Your task to perform on an android device: When is my next appointment? Image 0: 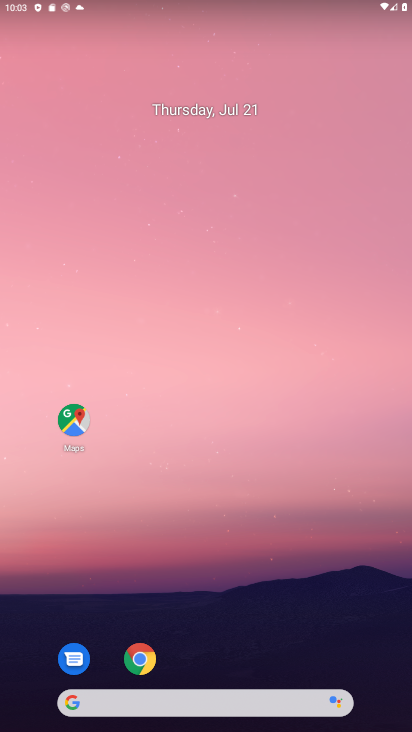
Step 0: drag from (252, 660) to (239, 216)
Your task to perform on an android device: When is my next appointment? Image 1: 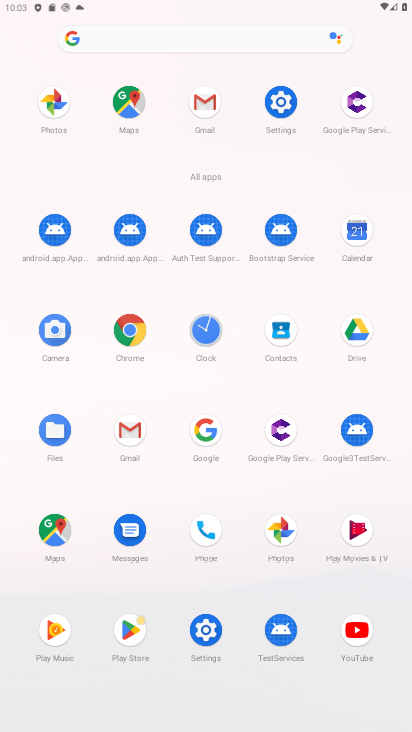
Step 1: click (286, 111)
Your task to perform on an android device: When is my next appointment? Image 2: 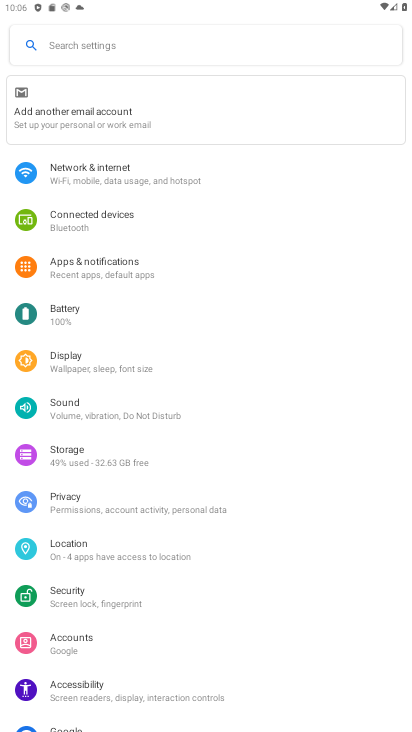
Step 2: task complete